Your task to perform on an android device: Open Yahoo.com Image 0: 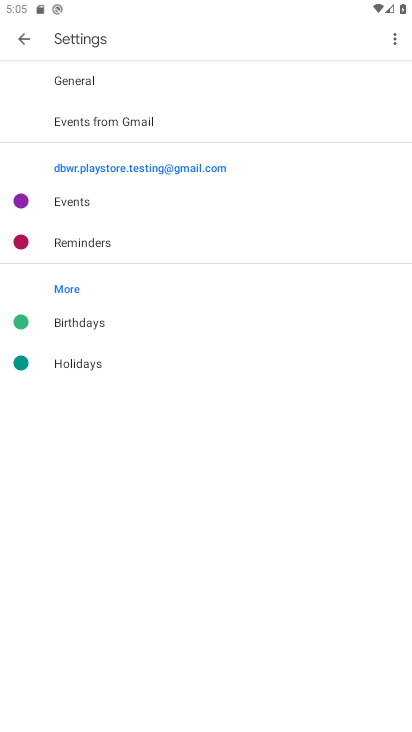
Step 0: press home button
Your task to perform on an android device: Open Yahoo.com Image 1: 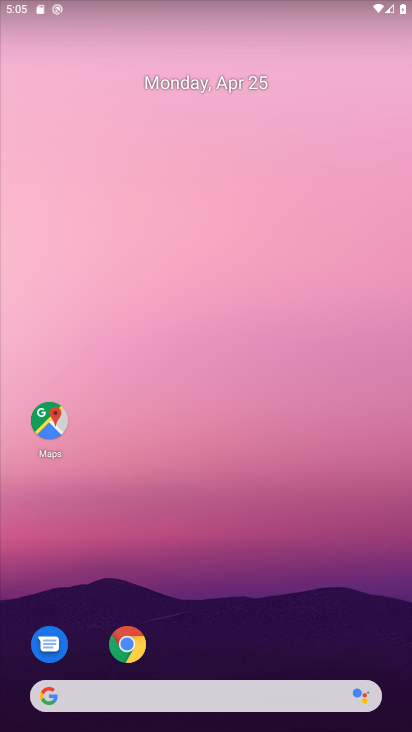
Step 1: click (132, 633)
Your task to perform on an android device: Open Yahoo.com Image 2: 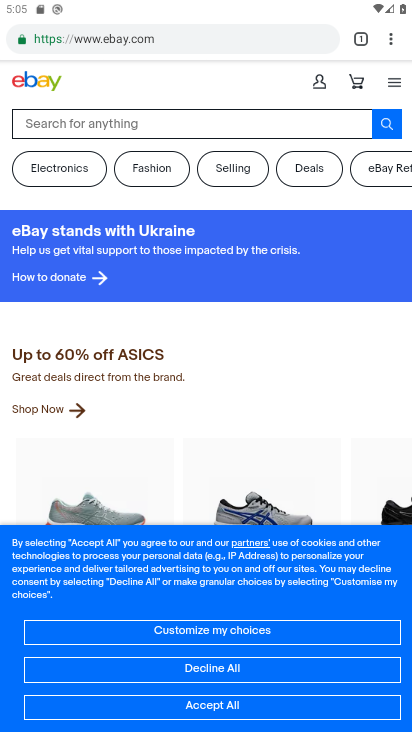
Step 2: click (351, 34)
Your task to perform on an android device: Open Yahoo.com Image 3: 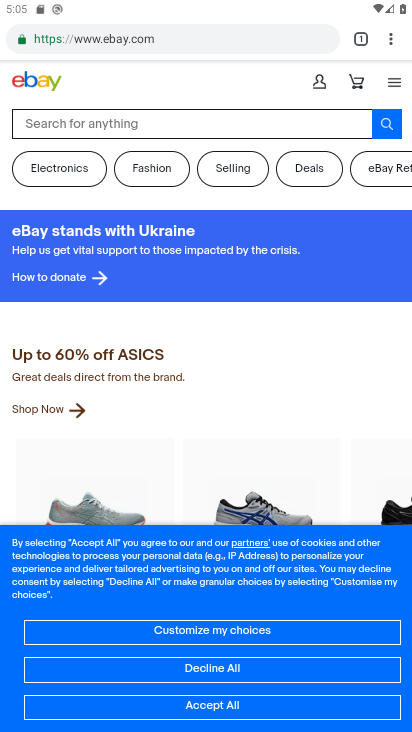
Step 3: click (351, 34)
Your task to perform on an android device: Open Yahoo.com Image 4: 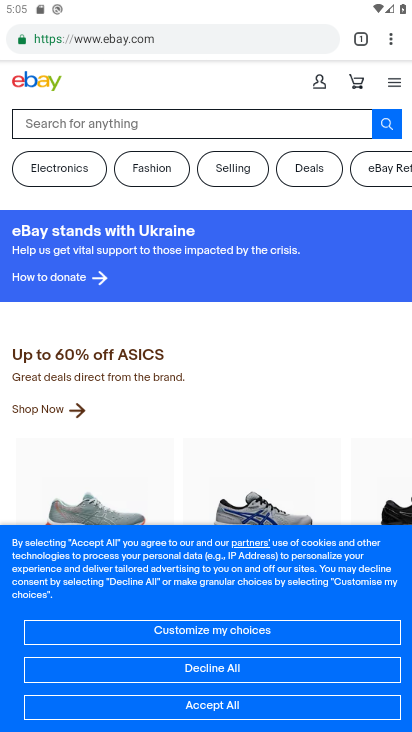
Step 4: click (354, 35)
Your task to perform on an android device: Open Yahoo.com Image 5: 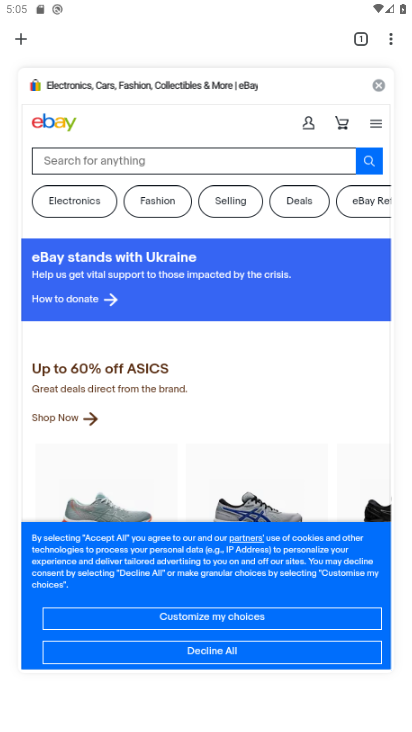
Step 5: click (16, 35)
Your task to perform on an android device: Open Yahoo.com Image 6: 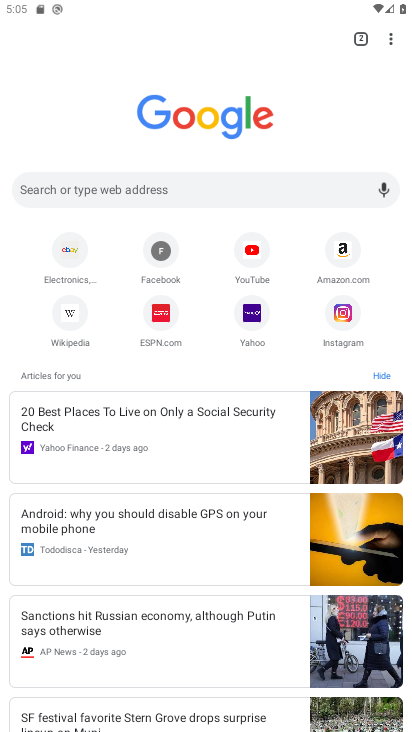
Step 6: click (253, 321)
Your task to perform on an android device: Open Yahoo.com Image 7: 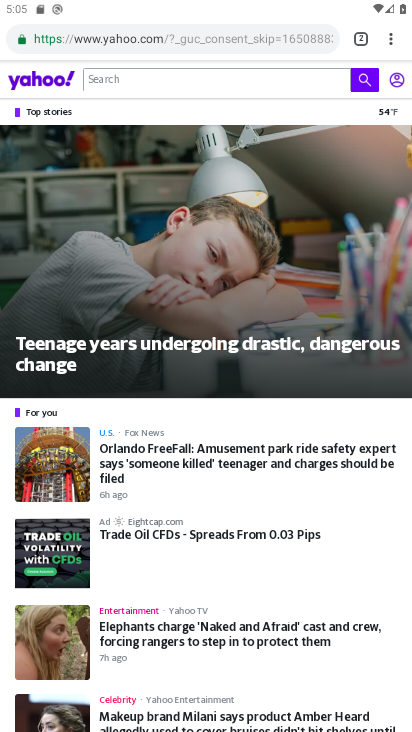
Step 7: task complete